Your task to perform on an android device: turn off smart reply in the gmail app Image 0: 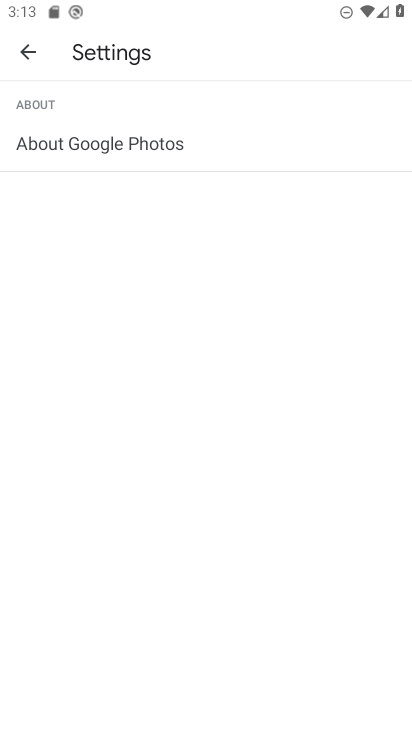
Step 0: press home button
Your task to perform on an android device: turn off smart reply in the gmail app Image 1: 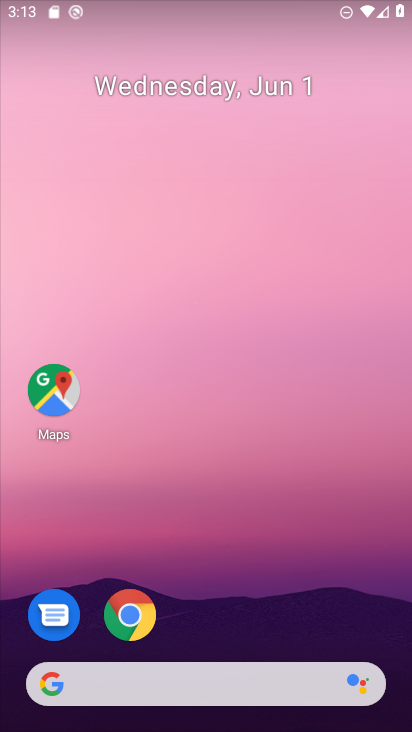
Step 1: drag from (232, 633) to (260, 134)
Your task to perform on an android device: turn off smart reply in the gmail app Image 2: 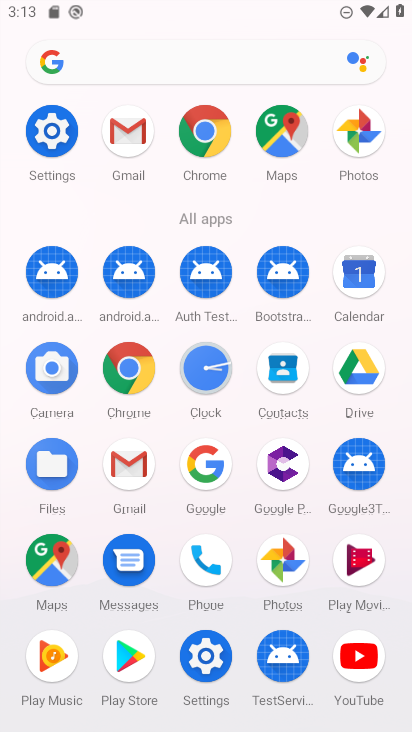
Step 2: click (126, 454)
Your task to perform on an android device: turn off smart reply in the gmail app Image 3: 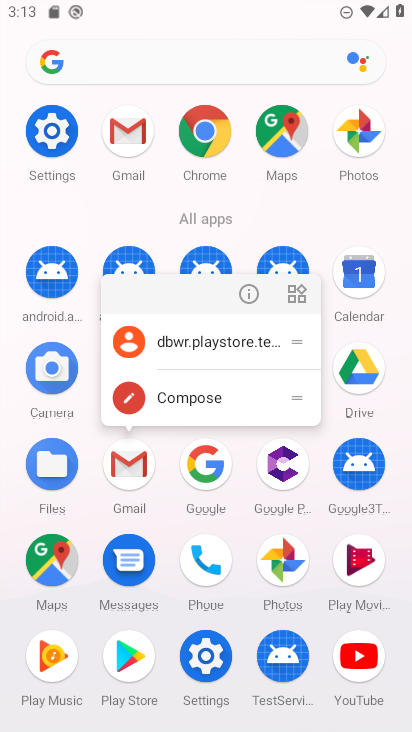
Step 3: click (126, 454)
Your task to perform on an android device: turn off smart reply in the gmail app Image 4: 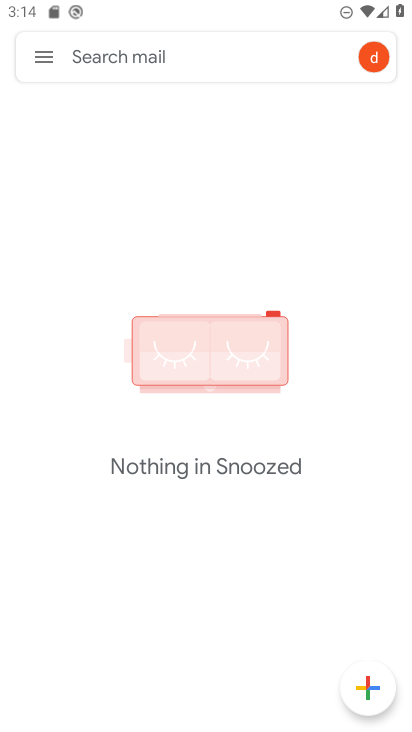
Step 4: click (38, 51)
Your task to perform on an android device: turn off smart reply in the gmail app Image 5: 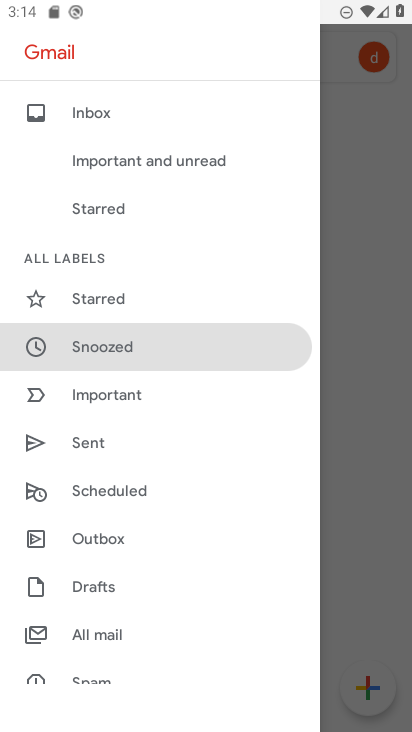
Step 5: drag from (154, 641) to (166, 215)
Your task to perform on an android device: turn off smart reply in the gmail app Image 6: 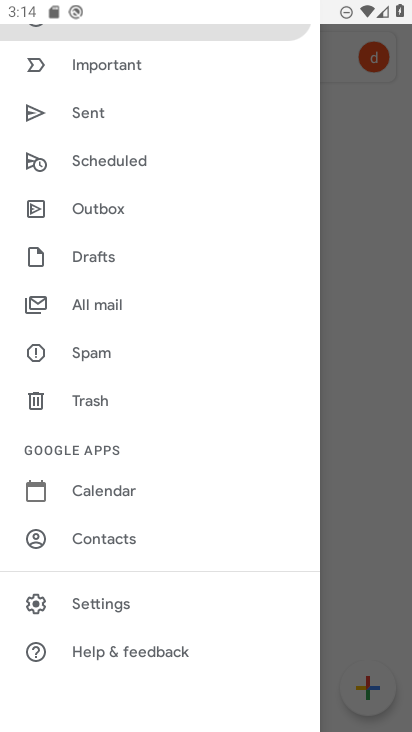
Step 6: click (139, 598)
Your task to perform on an android device: turn off smart reply in the gmail app Image 7: 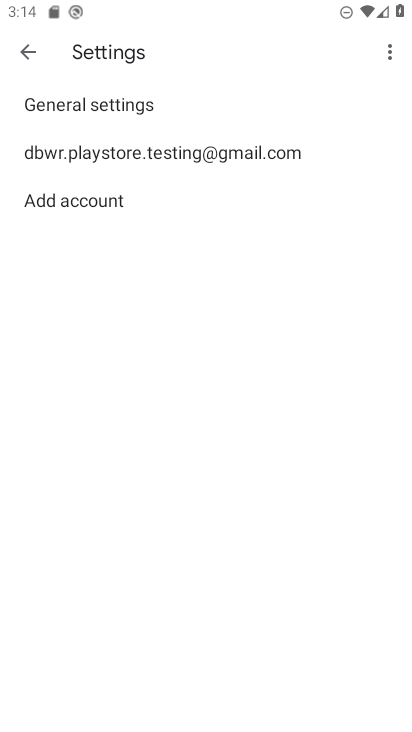
Step 7: click (309, 149)
Your task to perform on an android device: turn off smart reply in the gmail app Image 8: 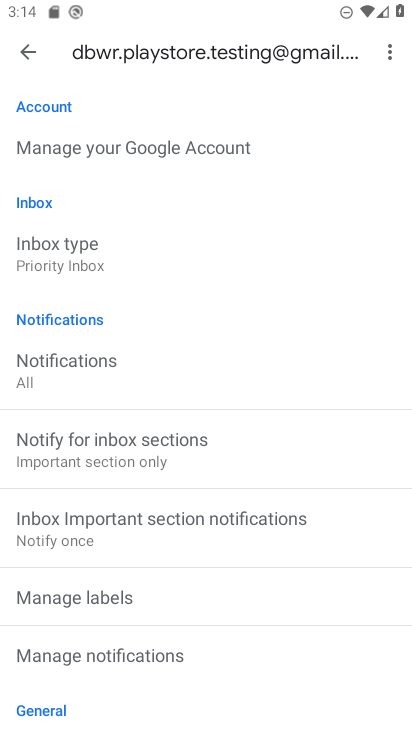
Step 8: drag from (218, 645) to (259, 257)
Your task to perform on an android device: turn off smart reply in the gmail app Image 9: 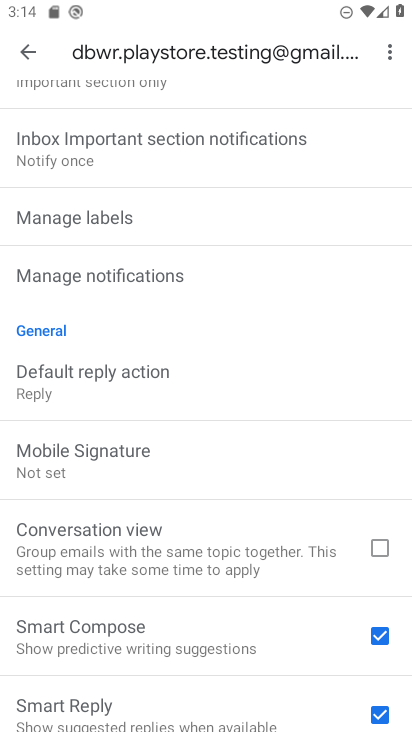
Step 9: drag from (225, 663) to (233, 283)
Your task to perform on an android device: turn off smart reply in the gmail app Image 10: 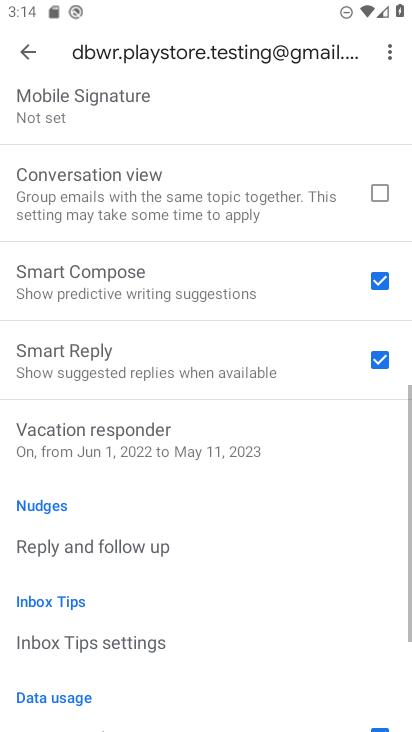
Step 10: click (233, 278)
Your task to perform on an android device: turn off smart reply in the gmail app Image 11: 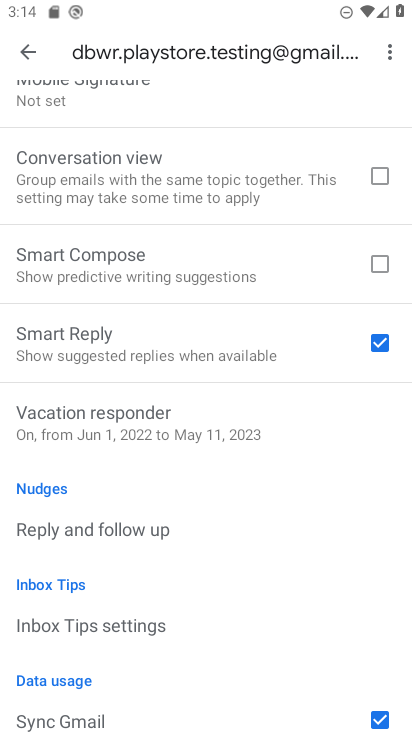
Step 11: click (368, 335)
Your task to perform on an android device: turn off smart reply in the gmail app Image 12: 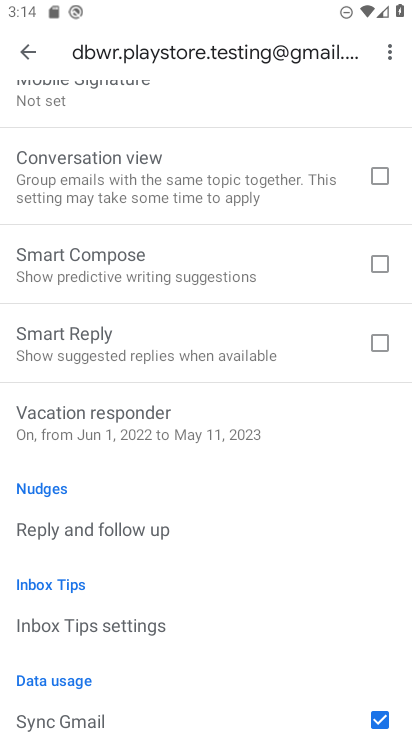
Step 12: task complete